Your task to perform on an android device: Is it going to rain today? Image 0: 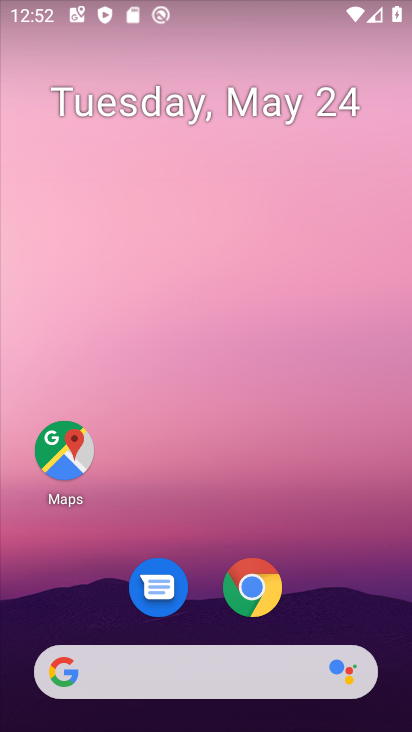
Step 0: click (199, 679)
Your task to perform on an android device: Is it going to rain today? Image 1: 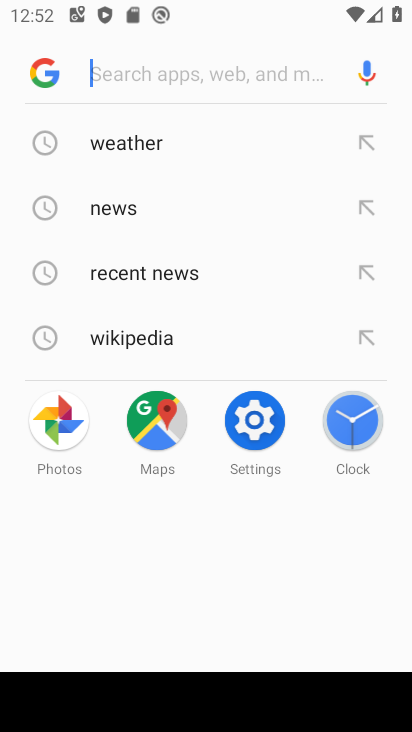
Step 1: click (138, 129)
Your task to perform on an android device: Is it going to rain today? Image 2: 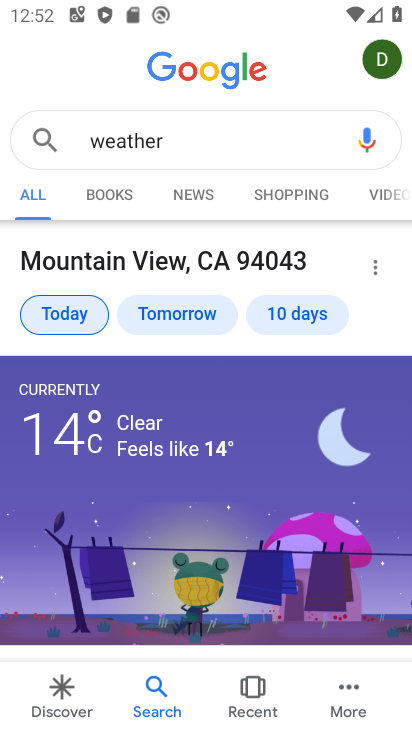
Step 2: task complete